Your task to perform on an android device: Show me the alarms in the clock app Image 0: 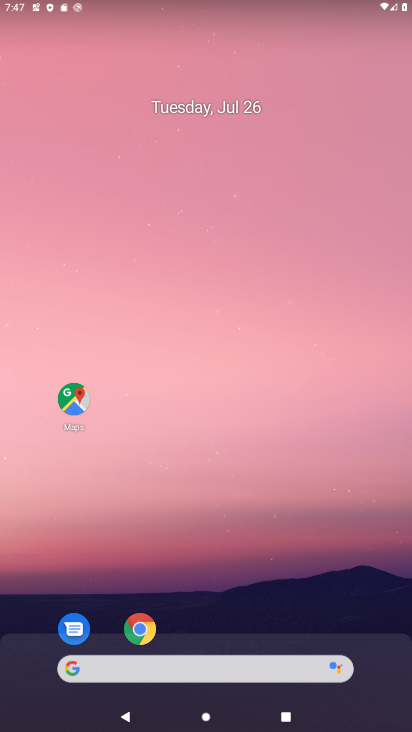
Step 0: drag from (259, 624) to (259, 91)
Your task to perform on an android device: Show me the alarms in the clock app Image 1: 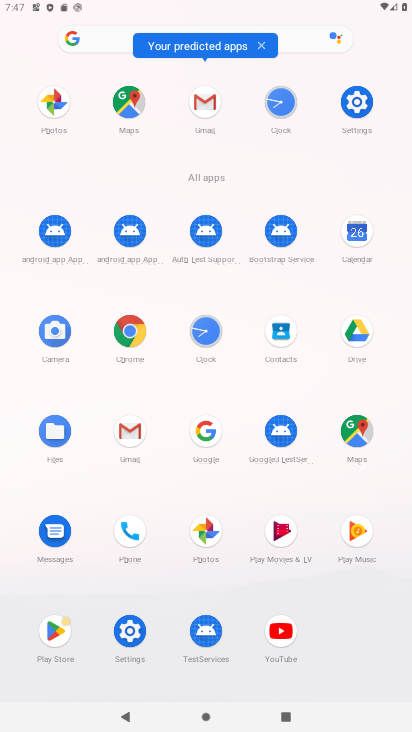
Step 1: click (282, 94)
Your task to perform on an android device: Show me the alarms in the clock app Image 2: 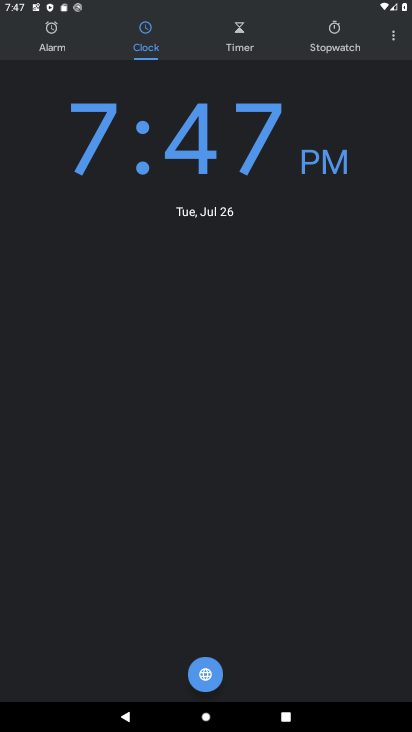
Step 2: click (63, 43)
Your task to perform on an android device: Show me the alarms in the clock app Image 3: 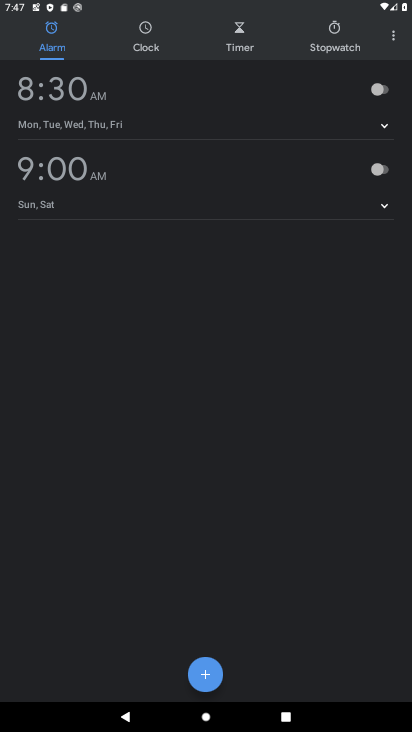
Step 3: task complete